Your task to perform on an android device: toggle notifications settings in the gmail app Image 0: 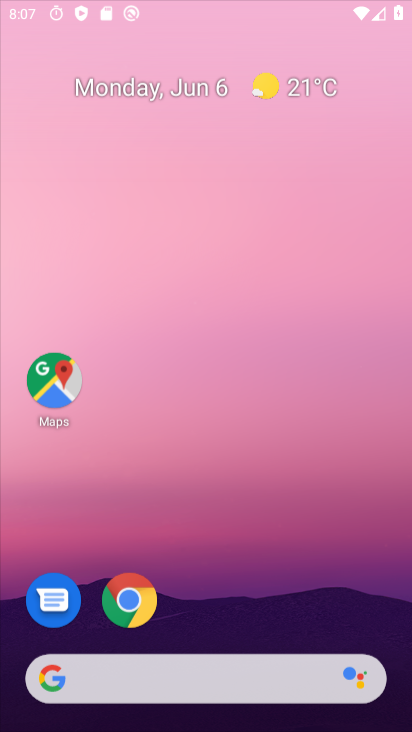
Step 0: click (183, 8)
Your task to perform on an android device: toggle notifications settings in the gmail app Image 1: 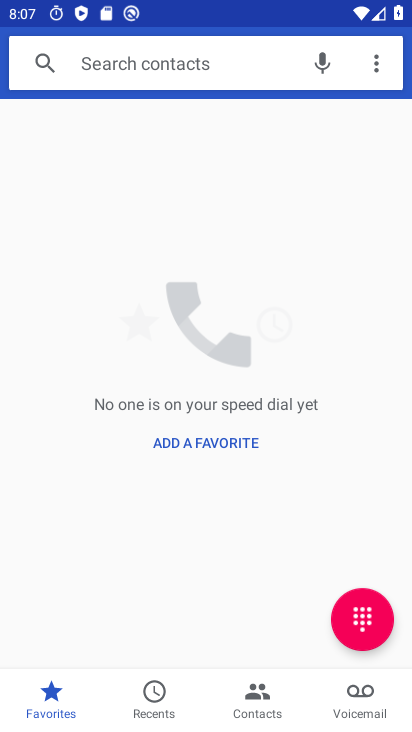
Step 1: press back button
Your task to perform on an android device: toggle notifications settings in the gmail app Image 2: 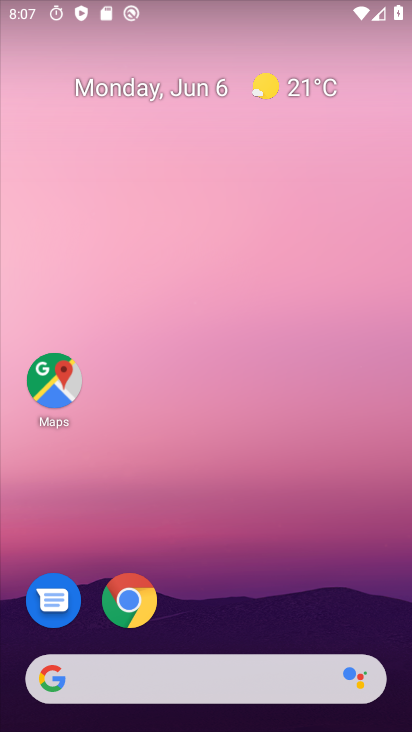
Step 2: drag from (277, 572) to (220, 61)
Your task to perform on an android device: toggle notifications settings in the gmail app Image 3: 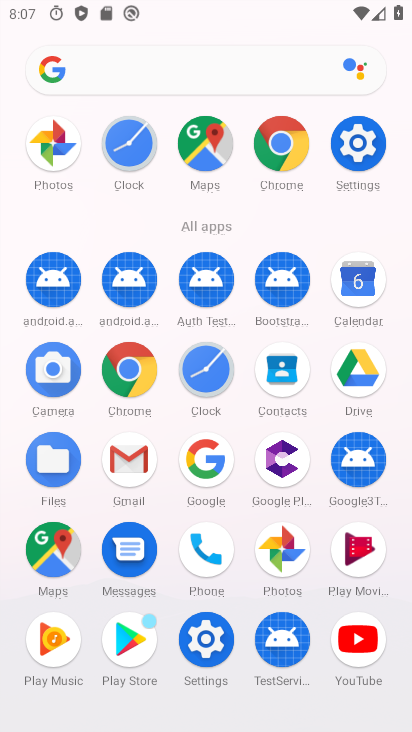
Step 3: click (131, 451)
Your task to perform on an android device: toggle notifications settings in the gmail app Image 4: 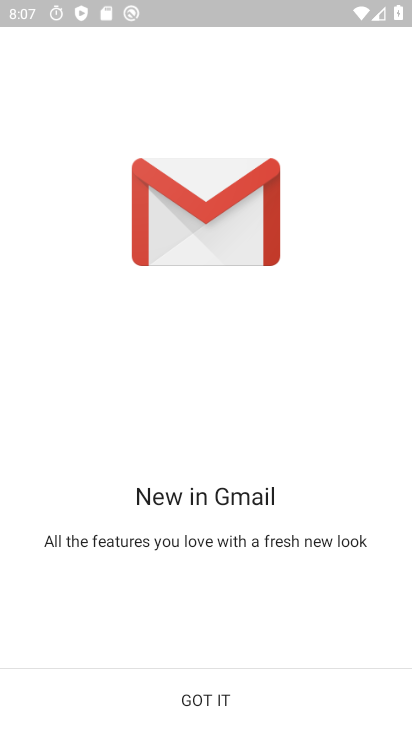
Step 4: click (252, 696)
Your task to perform on an android device: toggle notifications settings in the gmail app Image 5: 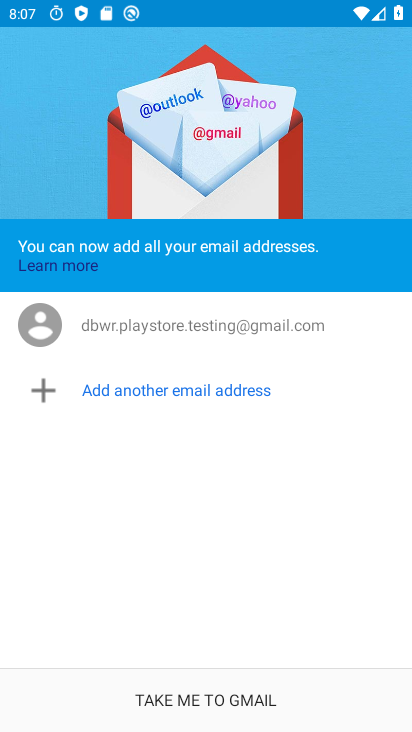
Step 5: click (251, 691)
Your task to perform on an android device: toggle notifications settings in the gmail app Image 6: 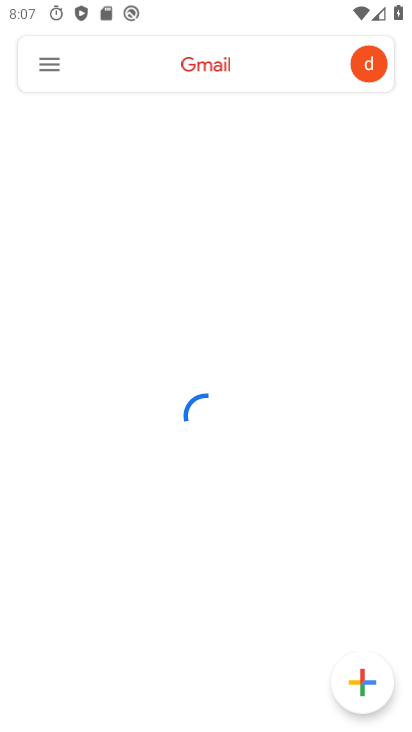
Step 6: click (49, 59)
Your task to perform on an android device: toggle notifications settings in the gmail app Image 7: 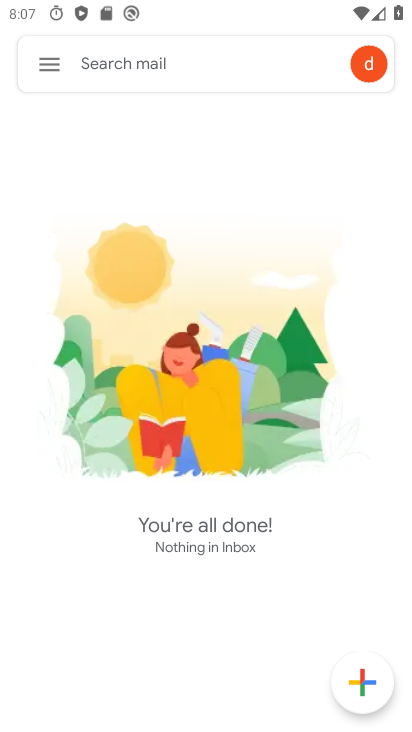
Step 7: click (49, 59)
Your task to perform on an android device: toggle notifications settings in the gmail app Image 8: 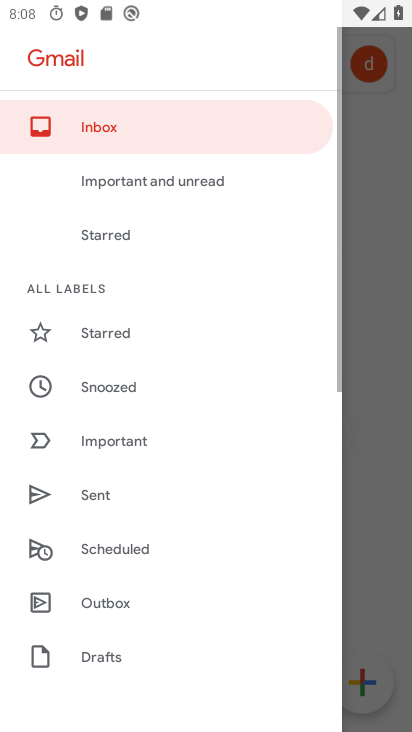
Step 8: drag from (178, 585) to (212, 212)
Your task to perform on an android device: toggle notifications settings in the gmail app Image 9: 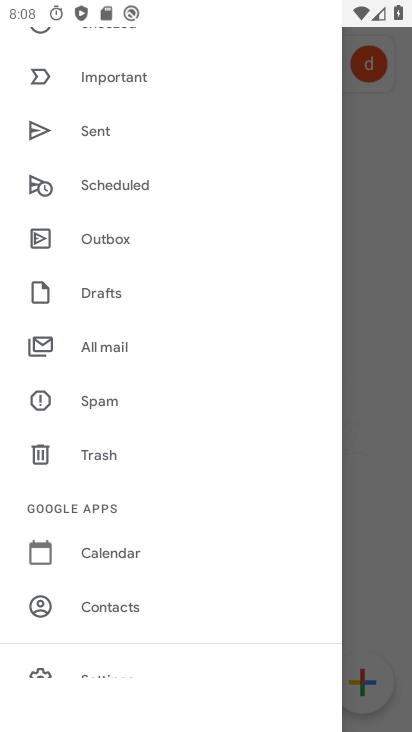
Step 9: drag from (184, 599) to (223, 181)
Your task to perform on an android device: toggle notifications settings in the gmail app Image 10: 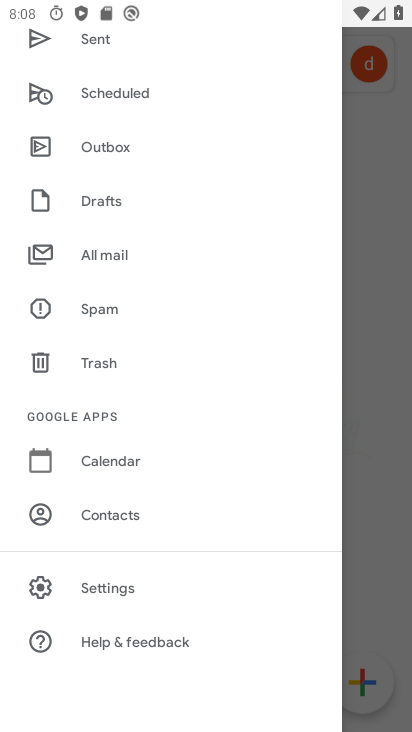
Step 10: click (127, 579)
Your task to perform on an android device: toggle notifications settings in the gmail app Image 11: 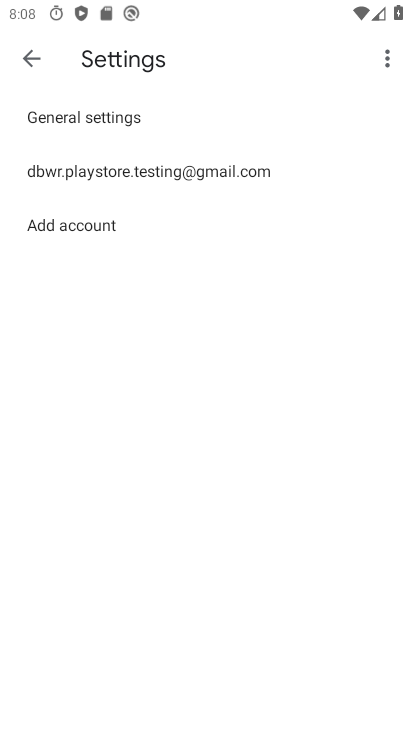
Step 11: click (140, 165)
Your task to perform on an android device: toggle notifications settings in the gmail app Image 12: 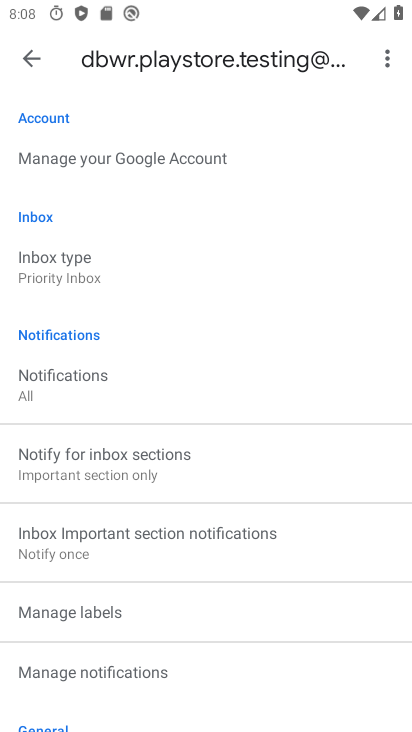
Step 12: click (133, 662)
Your task to perform on an android device: toggle notifications settings in the gmail app Image 13: 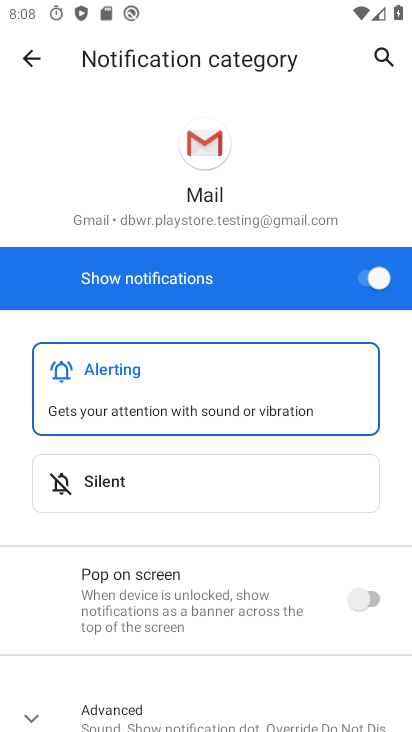
Step 13: click (356, 279)
Your task to perform on an android device: toggle notifications settings in the gmail app Image 14: 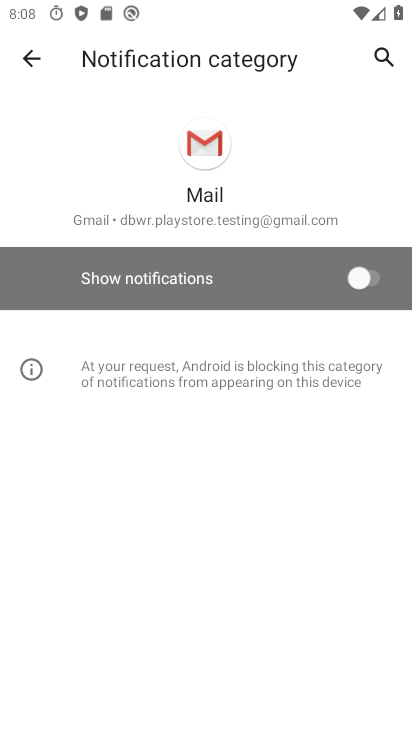
Step 14: task complete